Your task to perform on an android device: set an alarm Image 0: 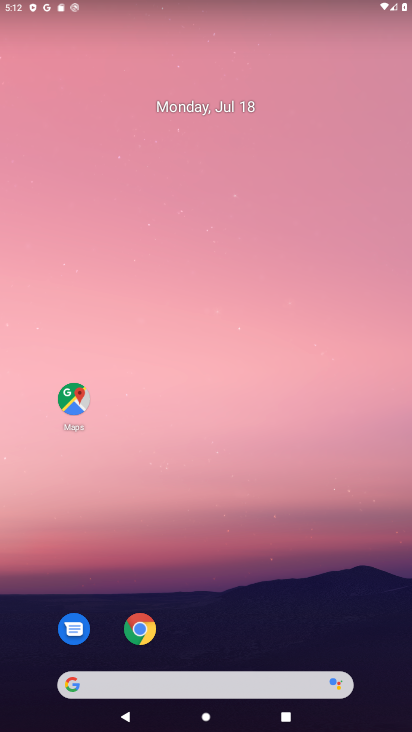
Step 0: drag from (297, 581) to (229, 61)
Your task to perform on an android device: set an alarm Image 1: 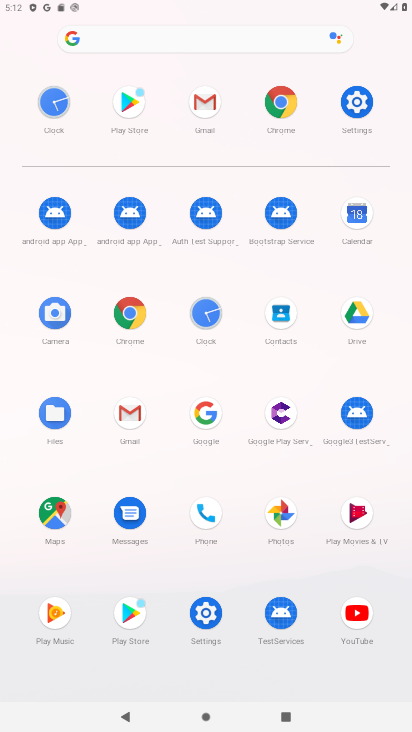
Step 1: click (209, 302)
Your task to perform on an android device: set an alarm Image 2: 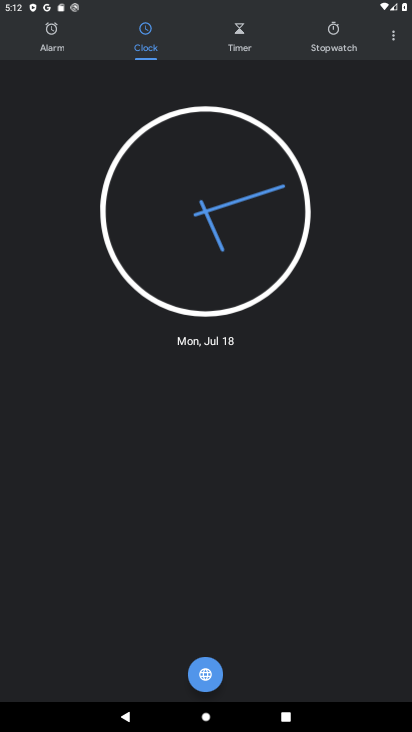
Step 2: click (65, 52)
Your task to perform on an android device: set an alarm Image 3: 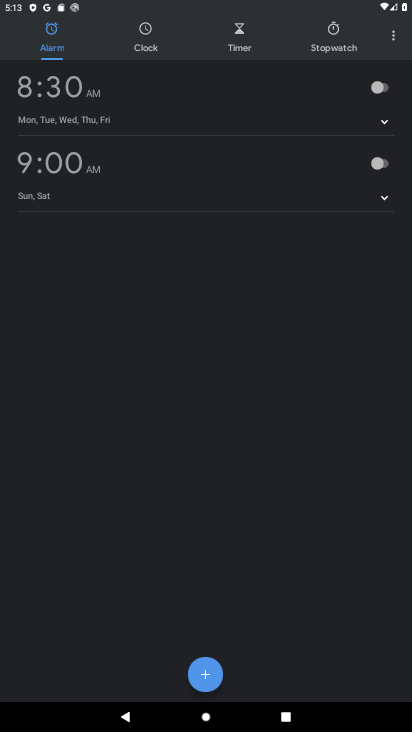
Step 3: click (215, 669)
Your task to perform on an android device: set an alarm Image 4: 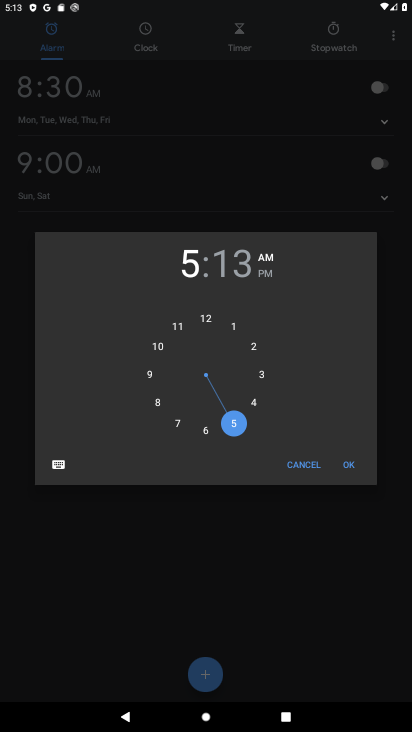
Step 4: click (355, 468)
Your task to perform on an android device: set an alarm Image 5: 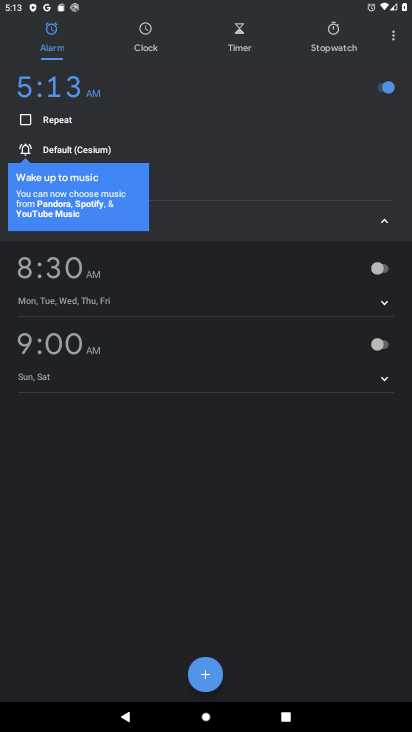
Step 5: task complete